Your task to perform on an android device: Is it going to rain today? Image 0: 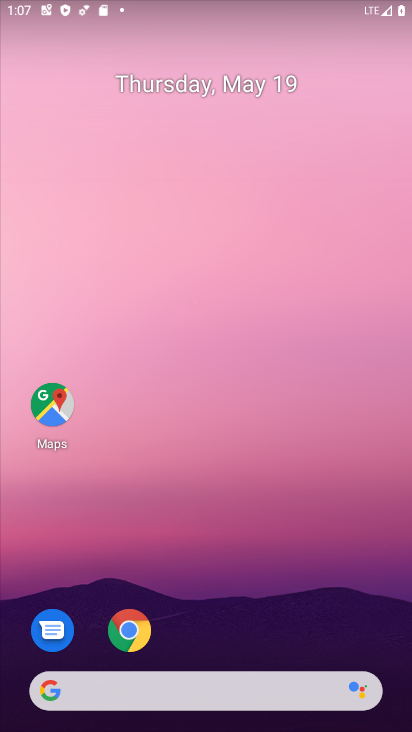
Step 0: click (224, 676)
Your task to perform on an android device: Is it going to rain today? Image 1: 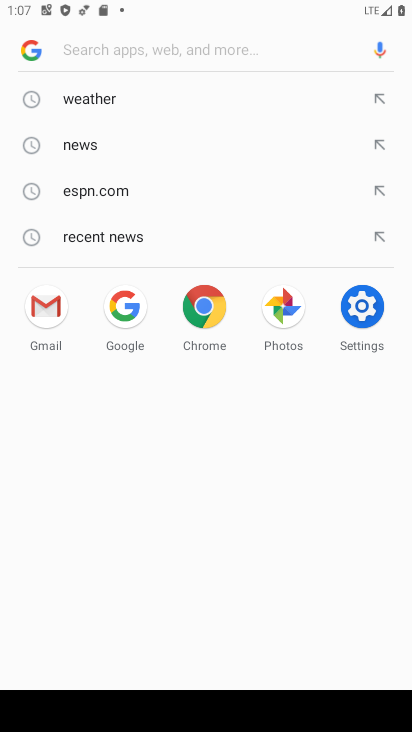
Step 1: click (99, 109)
Your task to perform on an android device: Is it going to rain today? Image 2: 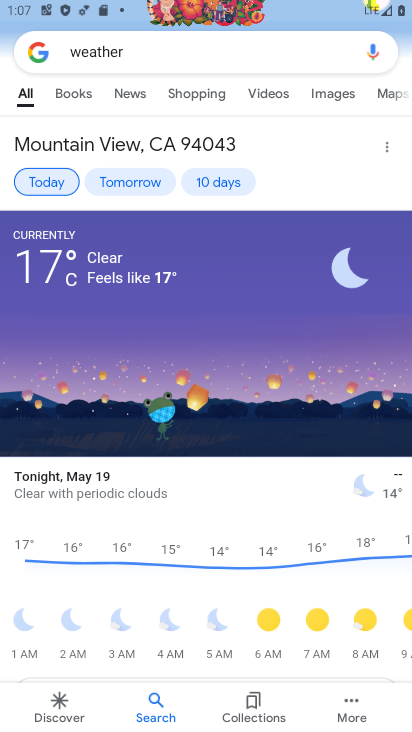
Step 2: task complete